Your task to perform on an android device: toggle improve location accuracy Image 0: 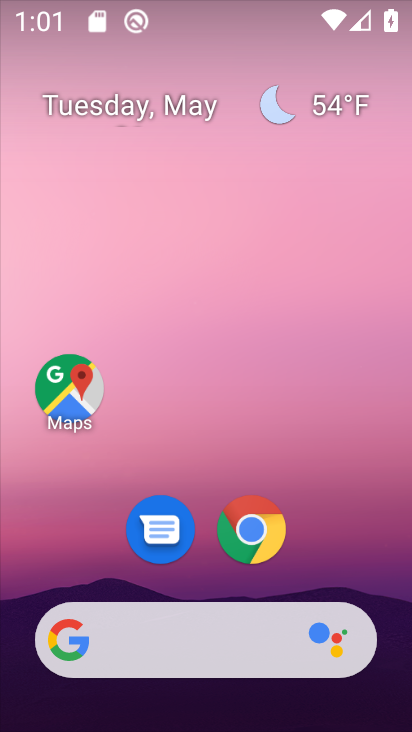
Step 0: drag from (308, 527) to (309, 182)
Your task to perform on an android device: toggle improve location accuracy Image 1: 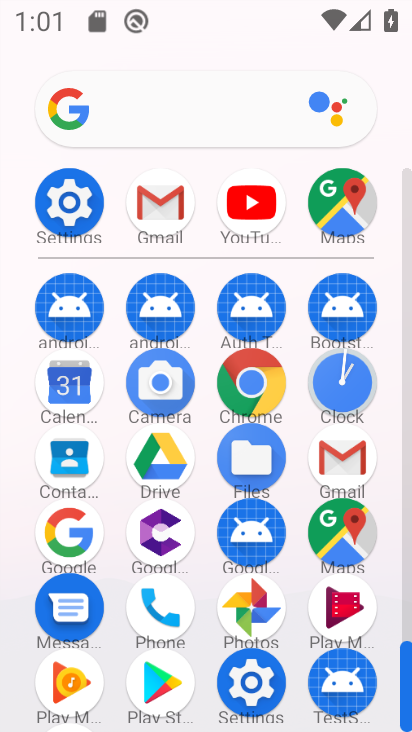
Step 1: click (59, 201)
Your task to perform on an android device: toggle improve location accuracy Image 2: 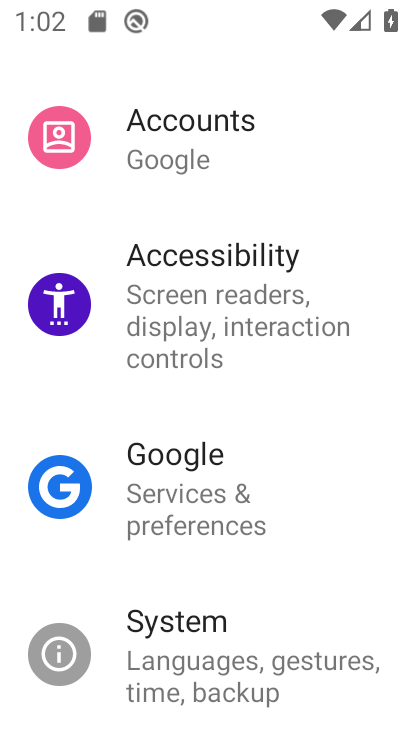
Step 2: drag from (278, 545) to (294, 249)
Your task to perform on an android device: toggle improve location accuracy Image 3: 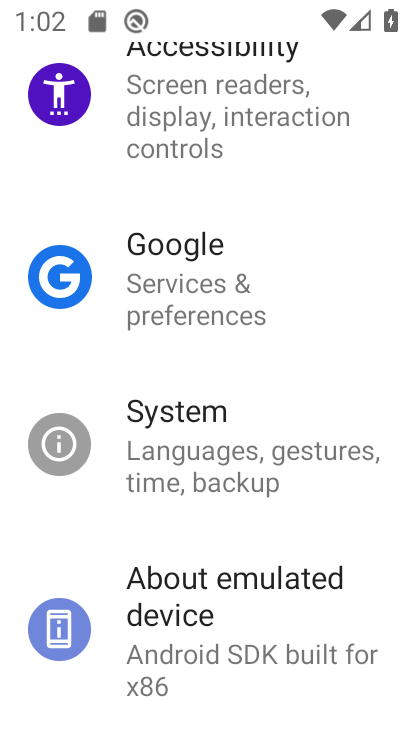
Step 3: drag from (269, 534) to (280, 271)
Your task to perform on an android device: toggle improve location accuracy Image 4: 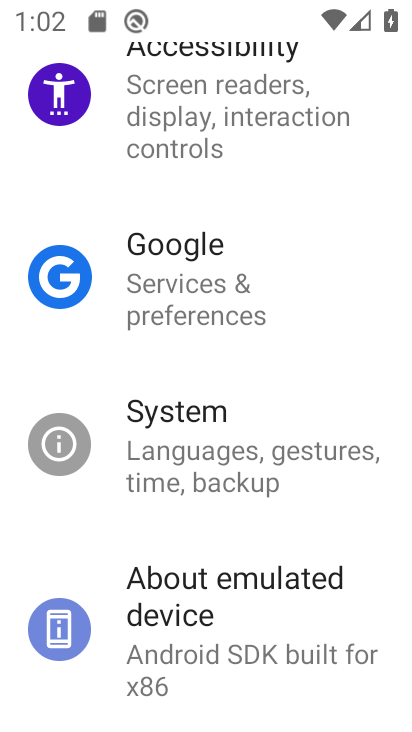
Step 4: drag from (254, 162) to (237, 678)
Your task to perform on an android device: toggle improve location accuracy Image 5: 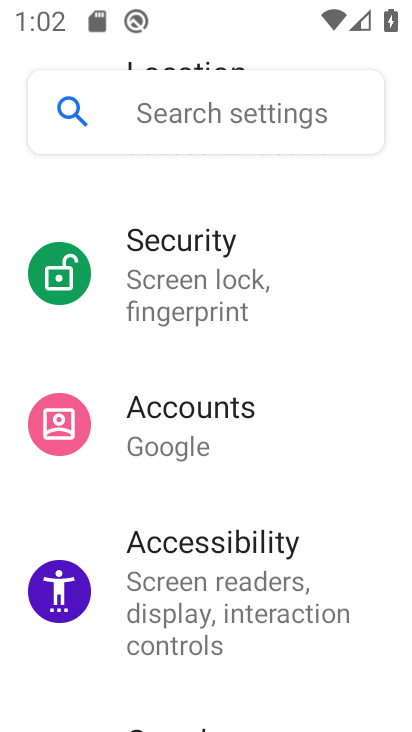
Step 5: drag from (245, 231) to (211, 579)
Your task to perform on an android device: toggle improve location accuracy Image 6: 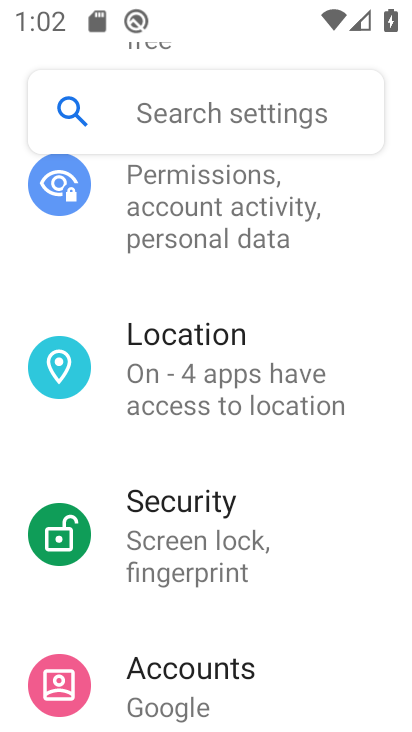
Step 6: click (242, 342)
Your task to perform on an android device: toggle improve location accuracy Image 7: 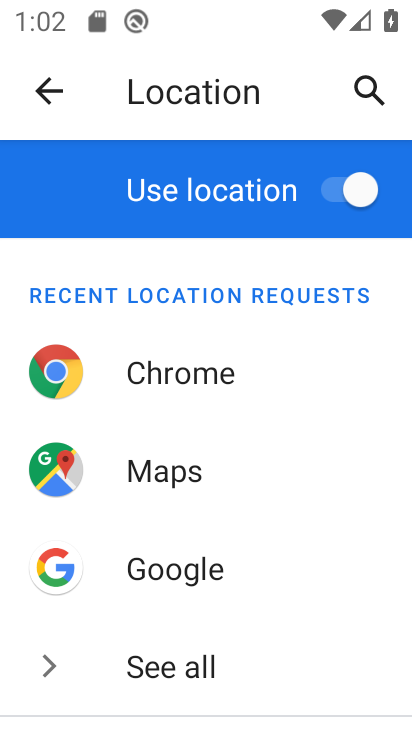
Step 7: drag from (239, 622) to (234, 207)
Your task to perform on an android device: toggle improve location accuracy Image 8: 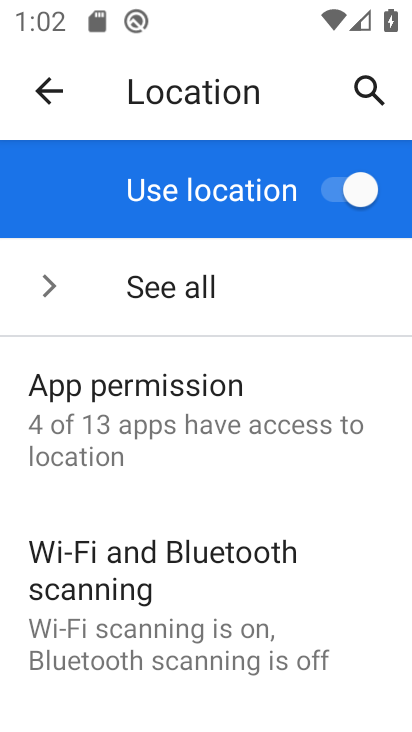
Step 8: drag from (193, 561) to (236, 291)
Your task to perform on an android device: toggle improve location accuracy Image 9: 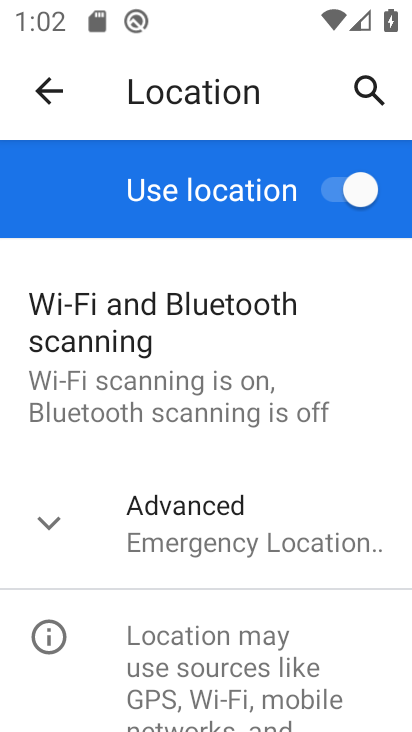
Step 9: click (196, 528)
Your task to perform on an android device: toggle improve location accuracy Image 10: 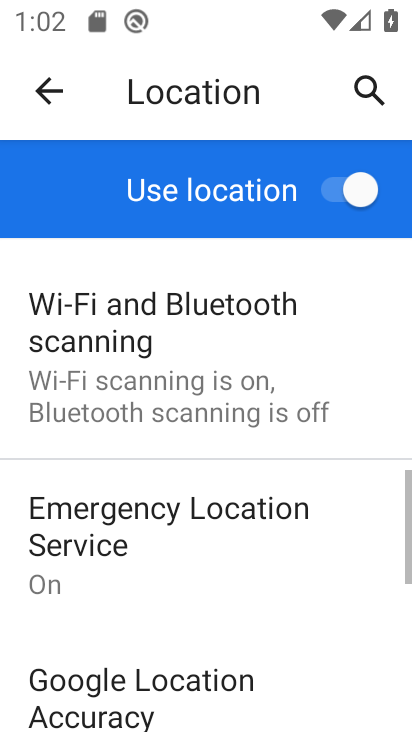
Step 10: drag from (207, 668) to (210, 406)
Your task to perform on an android device: toggle improve location accuracy Image 11: 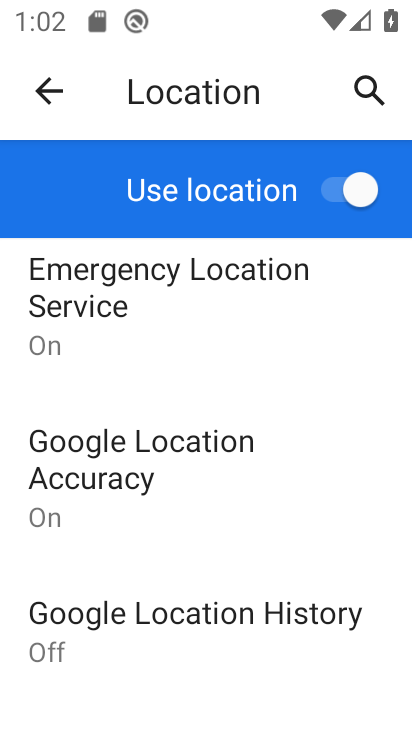
Step 11: click (106, 457)
Your task to perform on an android device: toggle improve location accuracy Image 12: 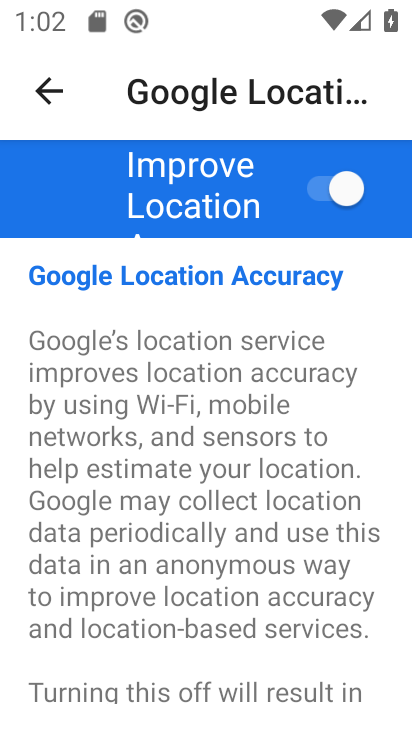
Step 12: drag from (179, 595) to (238, 308)
Your task to perform on an android device: toggle improve location accuracy Image 13: 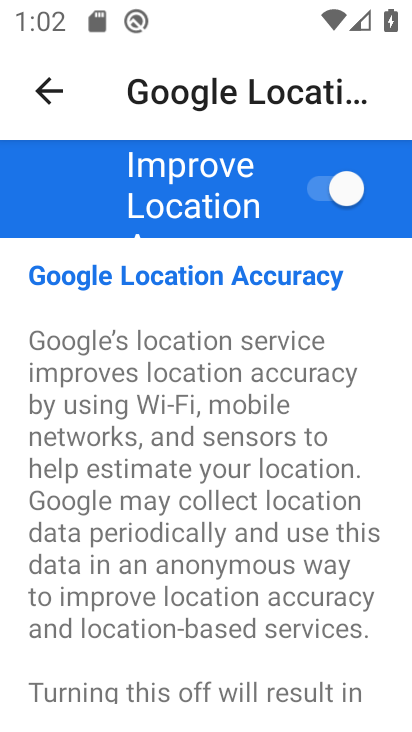
Step 13: drag from (217, 555) to (229, 288)
Your task to perform on an android device: toggle improve location accuracy Image 14: 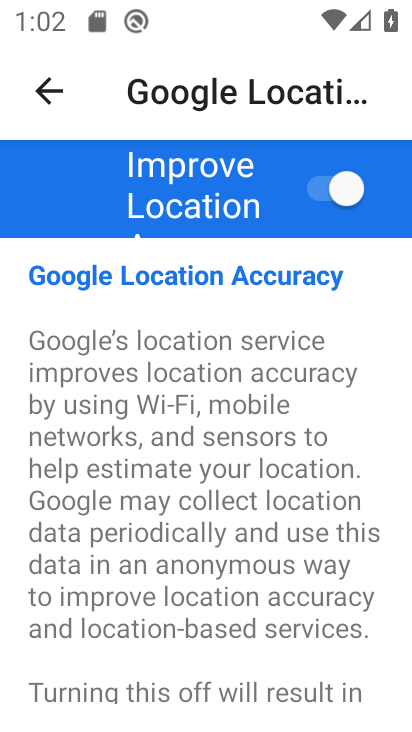
Step 14: click (304, 173)
Your task to perform on an android device: toggle improve location accuracy Image 15: 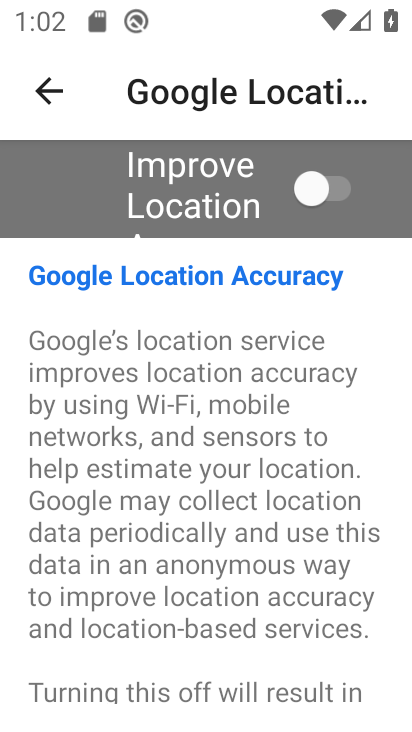
Step 15: task complete